Your task to perform on an android device: turn on showing notifications on the lock screen Image 0: 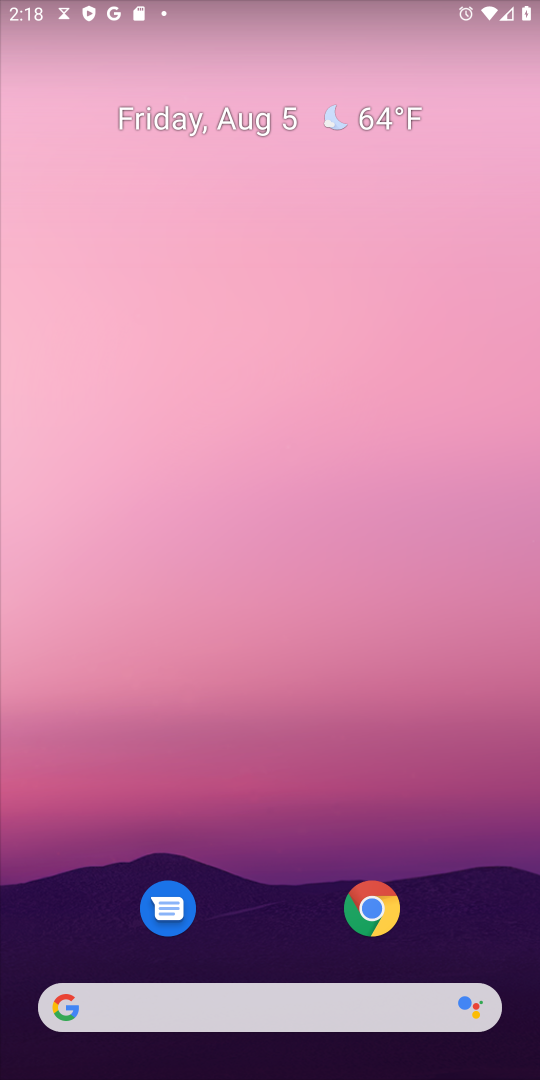
Step 0: drag from (326, 898) to (380, 91)
Your task to perform on an android device: turn on showing notifications on the lock screen Image 1: 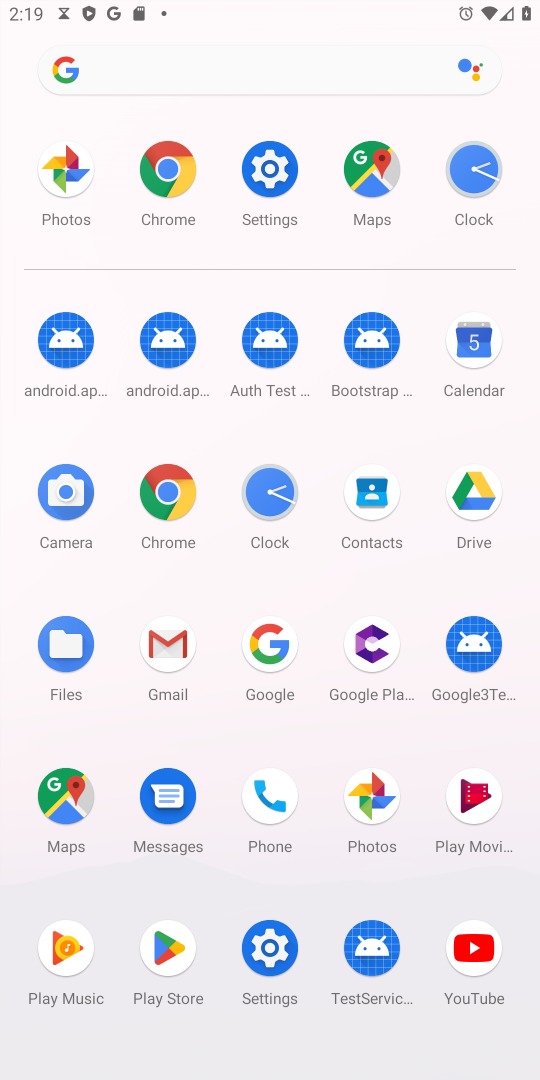
Step 1: click (279, 166)
Your task to perform on an android device: turn on showing notifications on the lock screen Image 2: 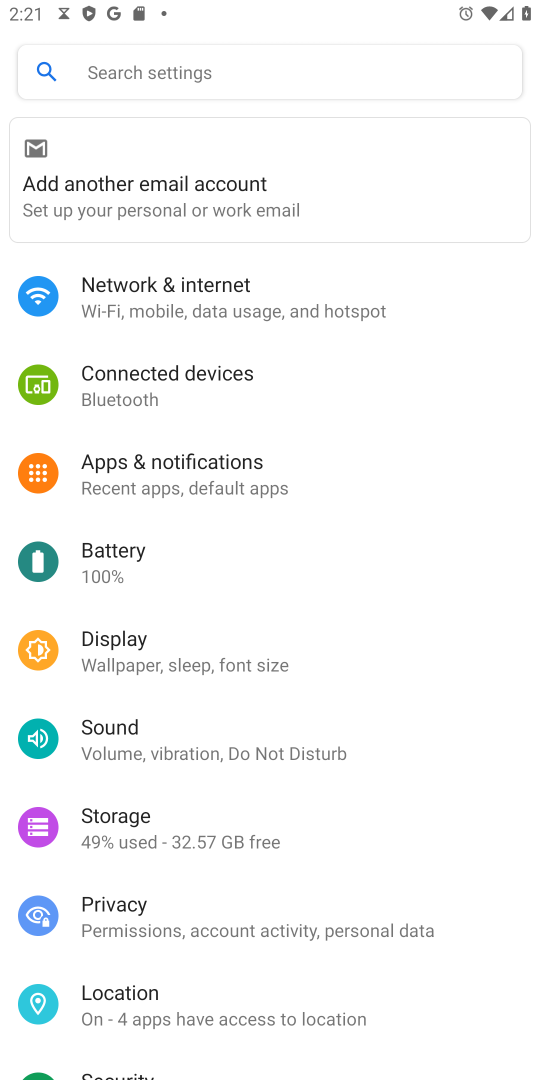
Step 2: click (108, 463)
Your task to perform on an android device: turn on showing notifications on the lock screen Image 3: 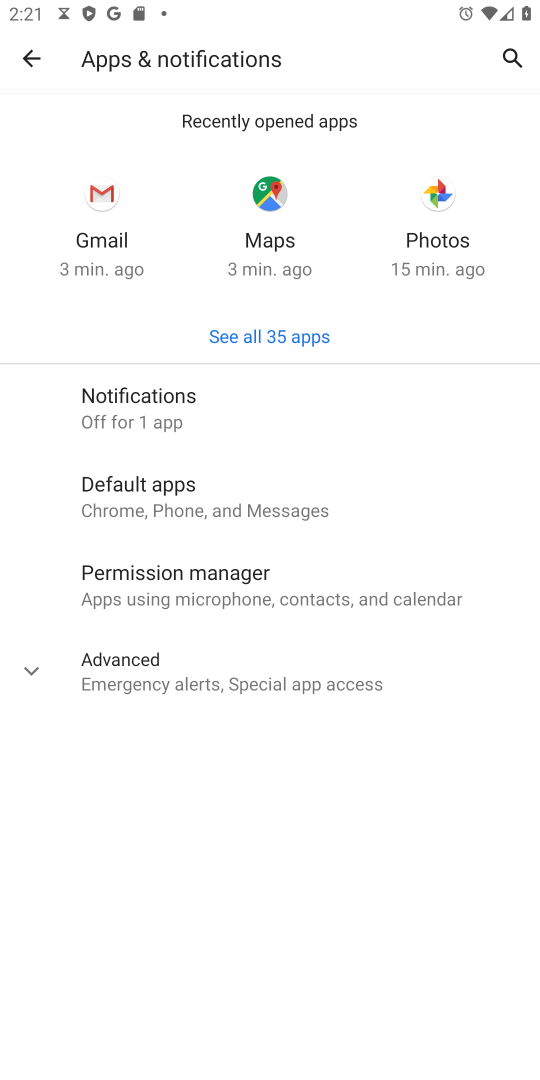
Step 3: click (95, 409)
Your task to perform on an android device: turn on showing notifications on the lock screen Image 4: 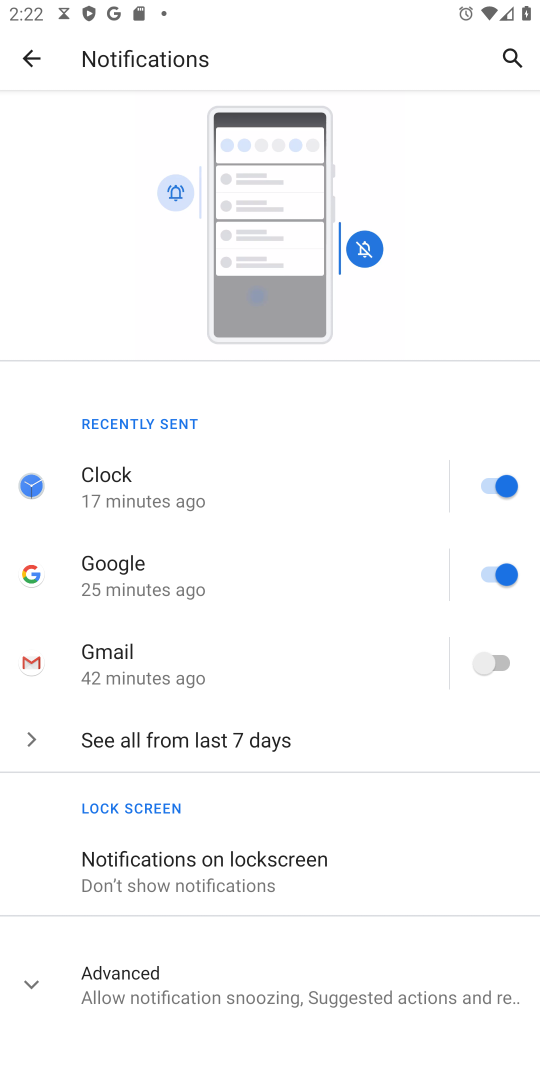
Step 4: click (245, 901)
Your task to perform on an android device: turn on showing notifications on the lock screen Image 5: 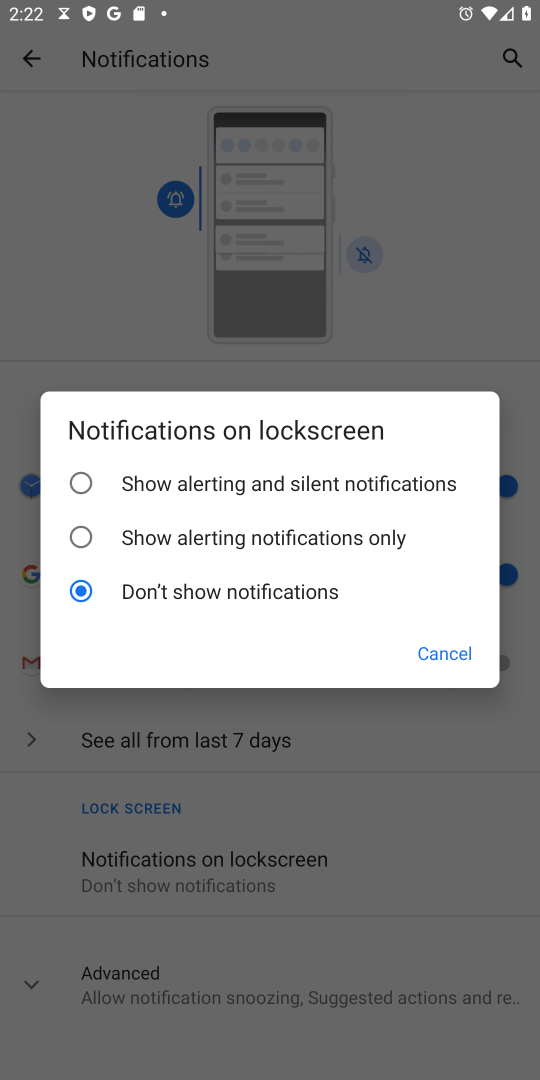
Step 5: click (79, 492)
Your task to perform on an android device: turn on showing notifications on the lock screen Image 6: 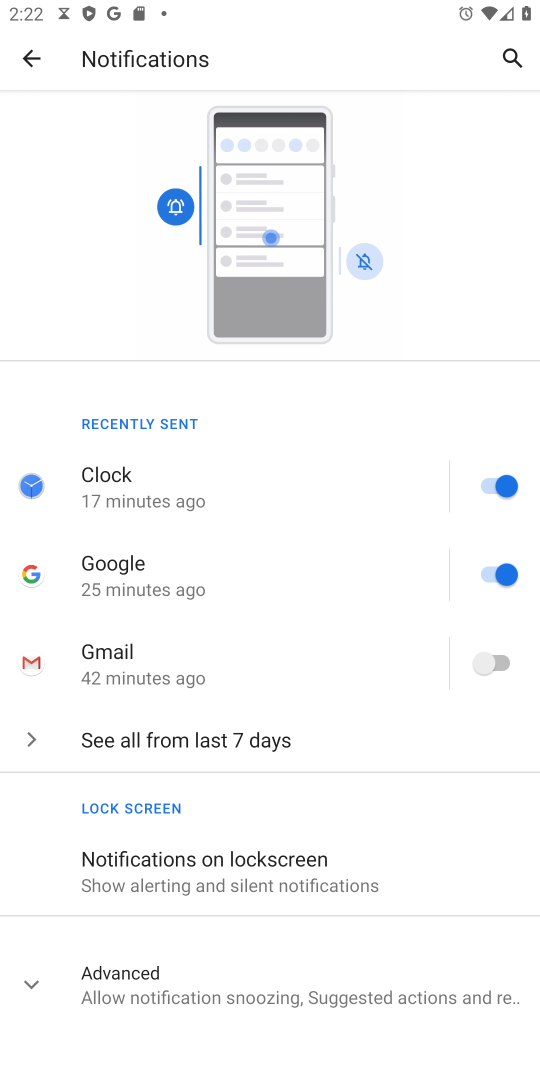
Step 6: task complete